Your task to perform on an android device: Go to wifi settings Image 0: 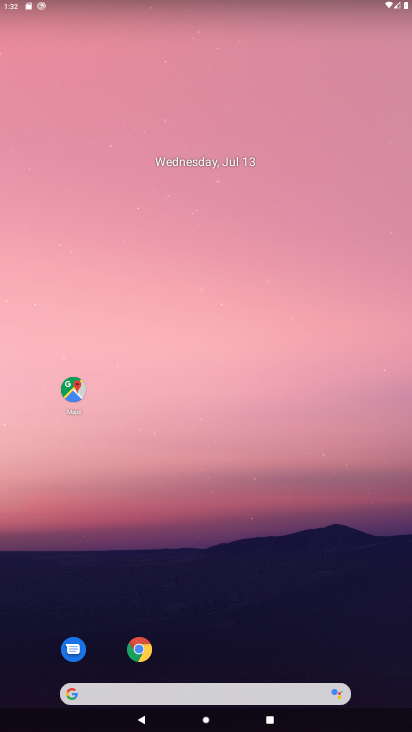
Step 0: press home button
Your task to perform on an android device: Go to wifi settings Image 1: 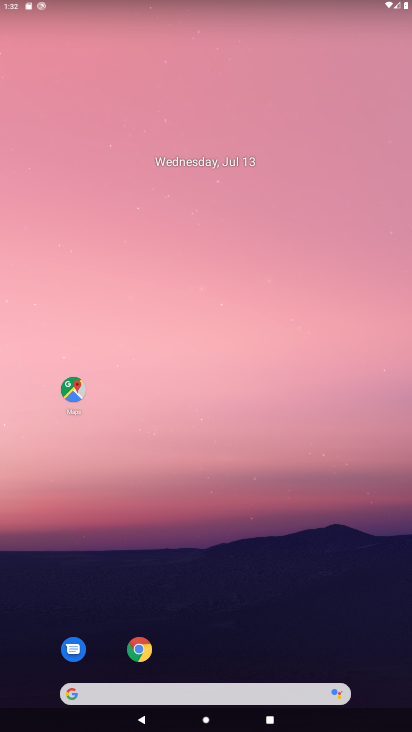
Step 1: click (112, 205)
Your task to perform on an android device: Go to wifi settings Image 2: 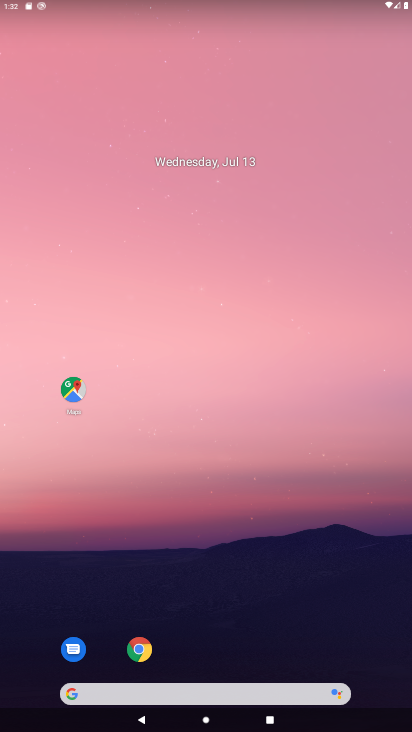
Step 2: drag from (363, 3) to (149, 442)
Your task to perform on an android device: Go to wifi settings Image 3: 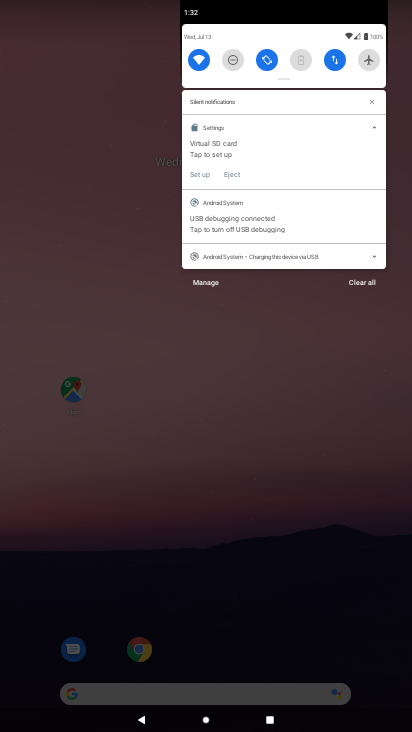
Step 3: click (205, 55)
Your task to perform on an android device: Go to wifi settings Image 4: 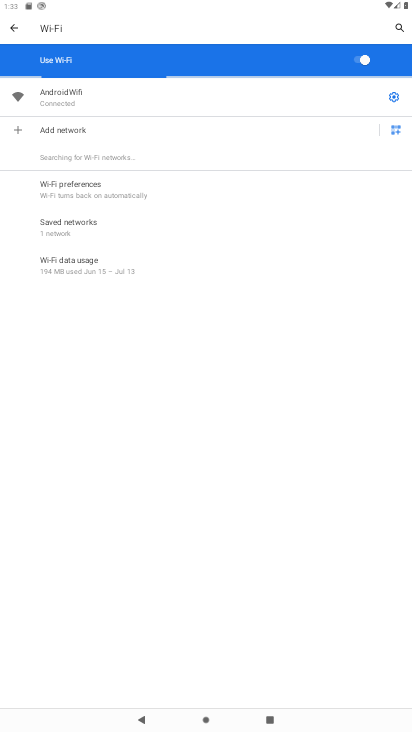
Step 4: task complete